Your task to perform on an android device: Open CNN.com Image 0: 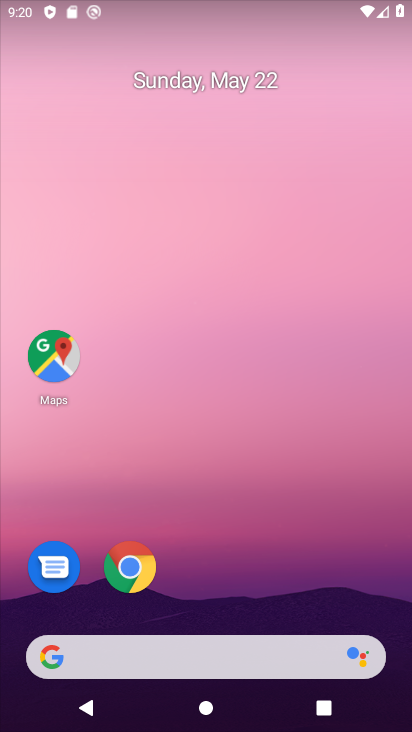
Step 0: drag from (252, 558) to (269, 253)
Your task to perform on an android device: Open CNN.com Image 1: 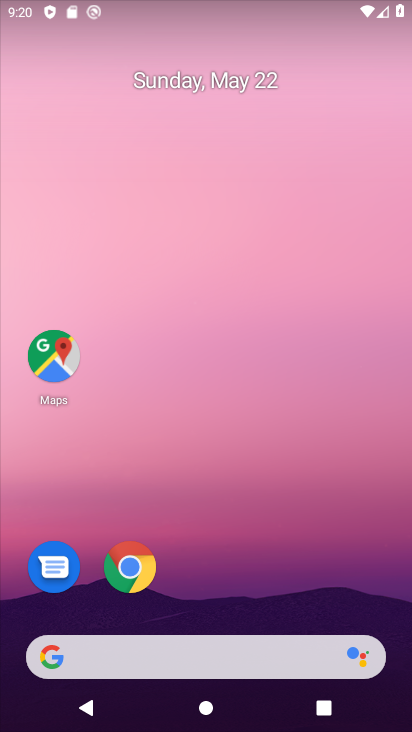
Step 1: click (135, 560)
Your task to perform on an android device: Open CNN.com Image 2: 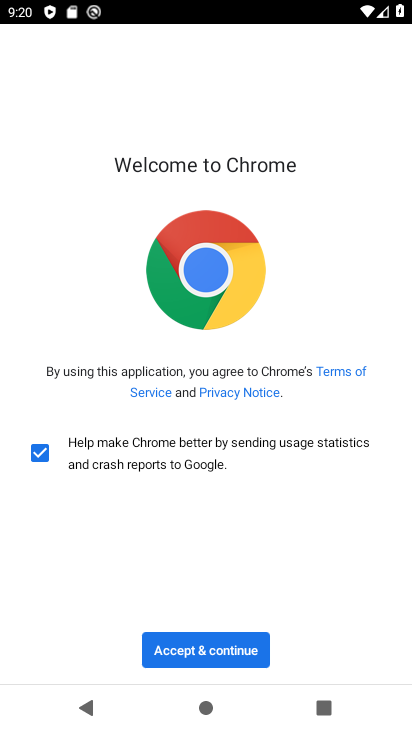
Step 2: click (223, 650)
Your task to perform on an android device: Open CNN.com Image 3: 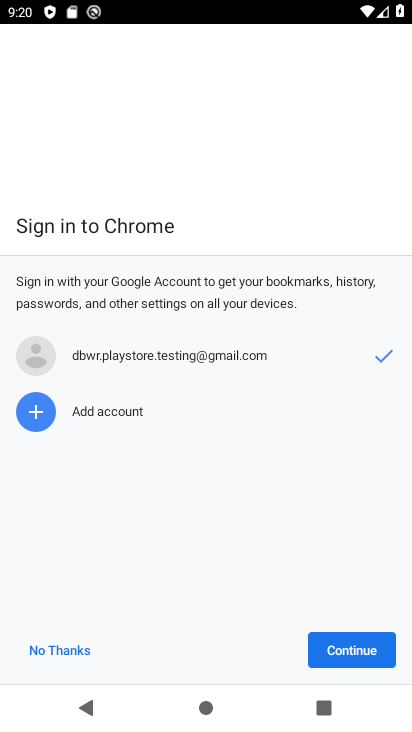
Step 3: click (327, 644)
Your task to perform on an android device: Open CNN.com Image 4: 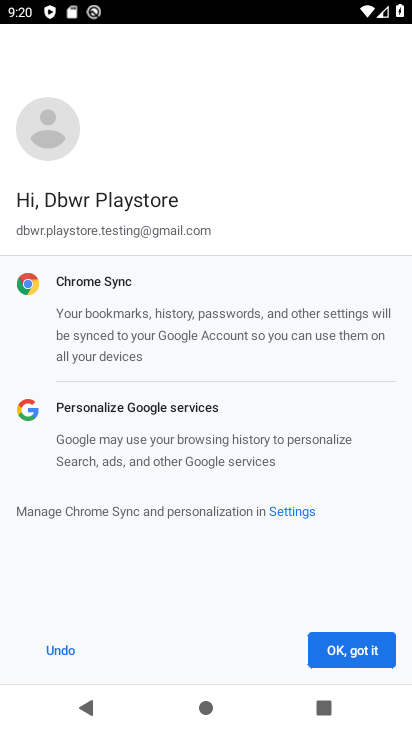
Step 4: click (330, 646)
Your task to perform on an android device: Open CNN.com Image 5: 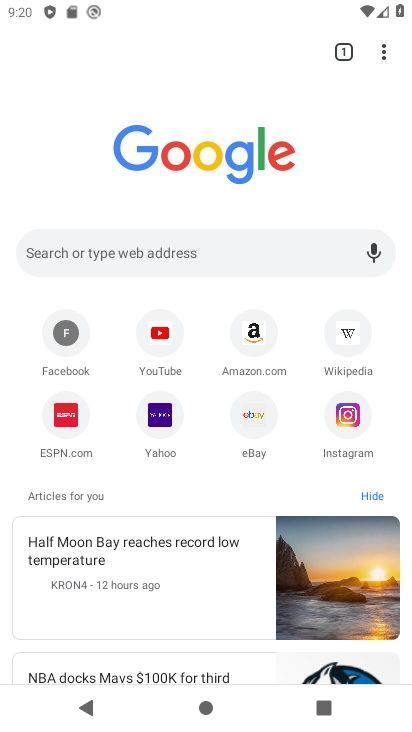
Step 5: click (218, 257)
Your task to perform on an android device: Open CNN.com Image 6: 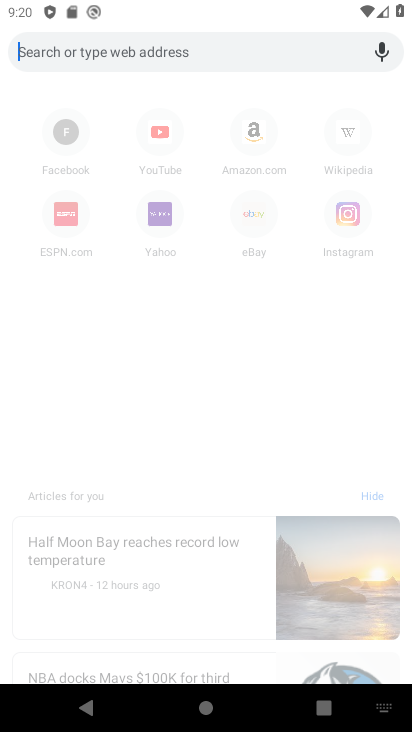
Step 6: type " CNN.com"
Your task to perform on an android device: Open CNN.com Image 7: 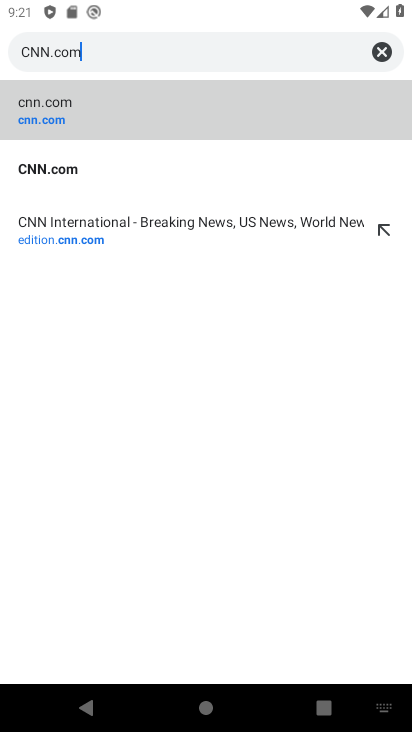
Step 7: click (76, 151)
Your task to perform on an android device: Open CNN.com Image 8: 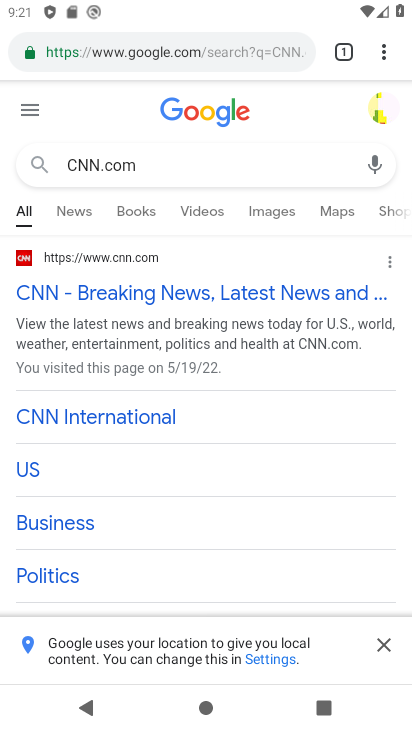
Step 8: task complete